Your task to perform on an android device: When is my next appointment? Image 0: 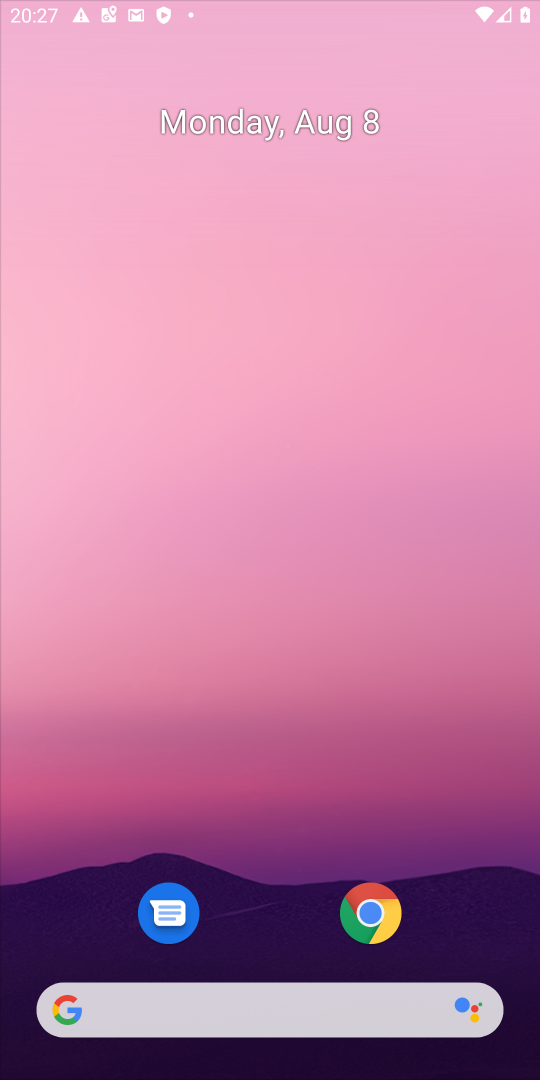
Step 0: press home button
Your task to perform on an android device: When is my next appointment? Image 1: 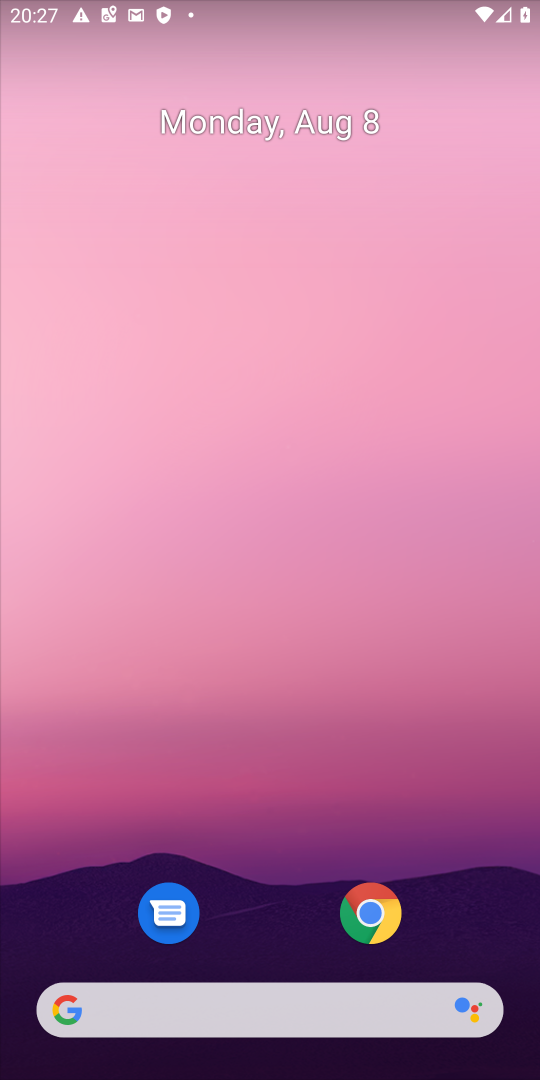
Step 1: drag from (269, 917) to (262, 115)
Your task to perform on an android device: When is my next appointment? Image 2: 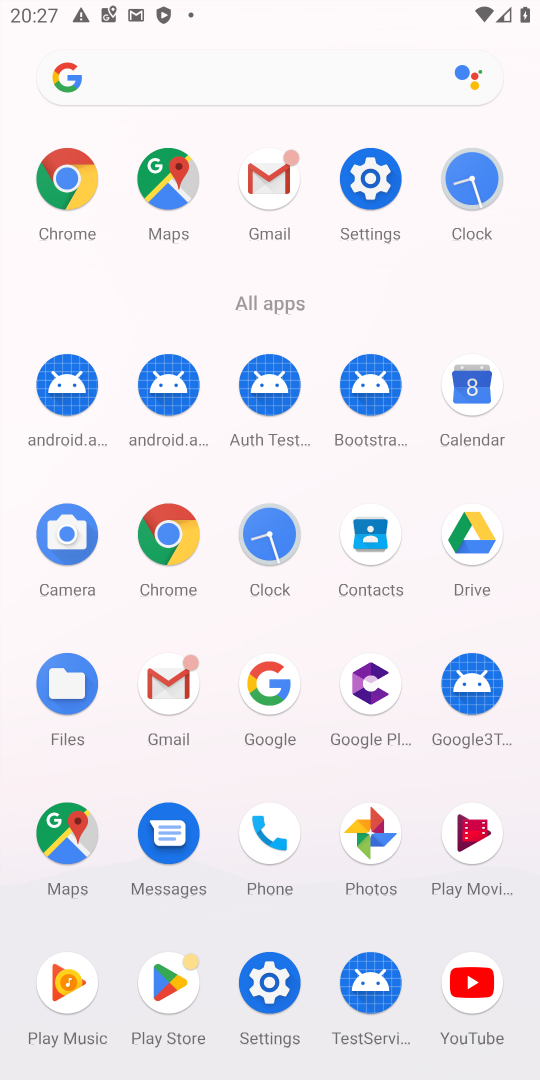
Step 2: click (484, 411)
Your task to perform on an android device: When is my next appointment? Image 3: 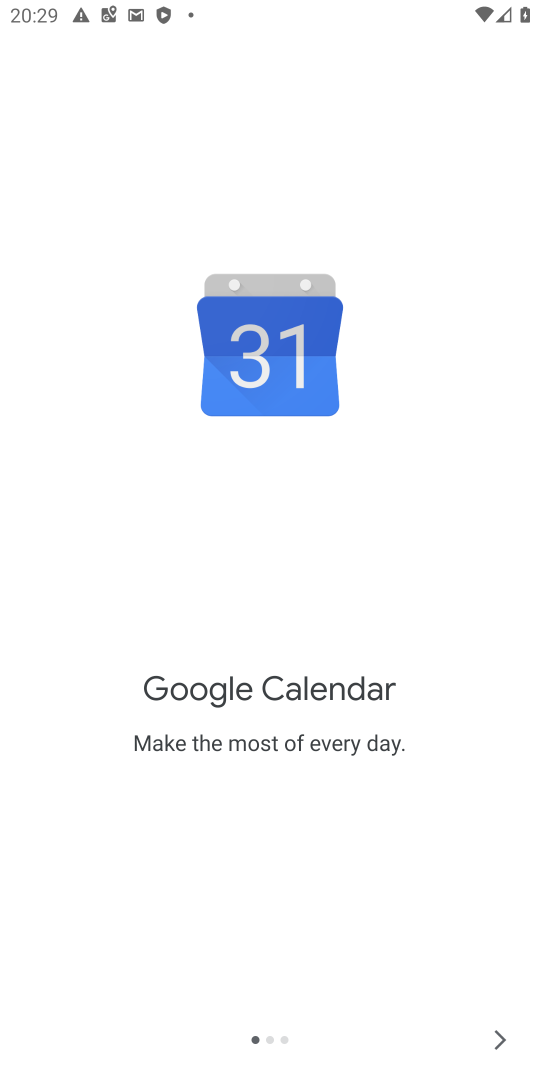
Step 3: click (498, 1049)
Your task to perform on an android device: When is my next appointment? Image 4: 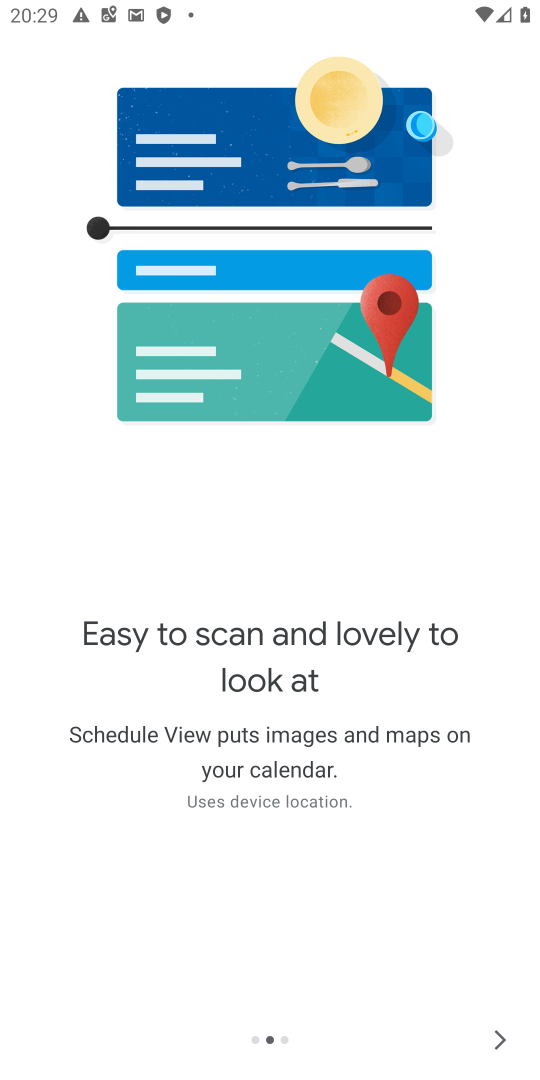
Step 4: click (501, 1043)
Your task to perform on an android device: When is my next appointment? Image 5: 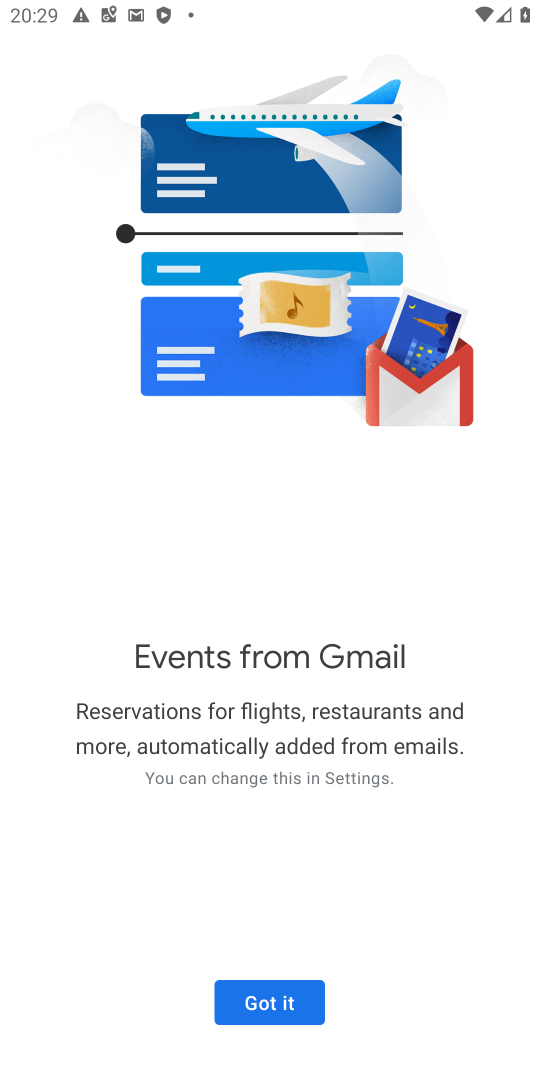
Step 5: click (317, 991)
Your task to perform on an android device: When is my next appointment? Image 6: 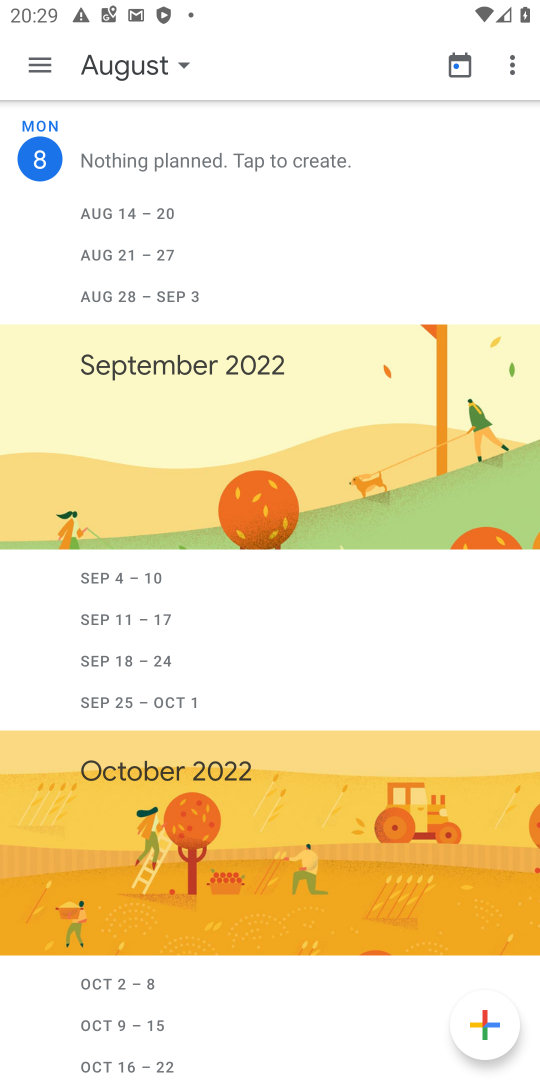
Step 6: click (311, 999)
Your task to perform on an android device: When is my next appointment? Image 7: 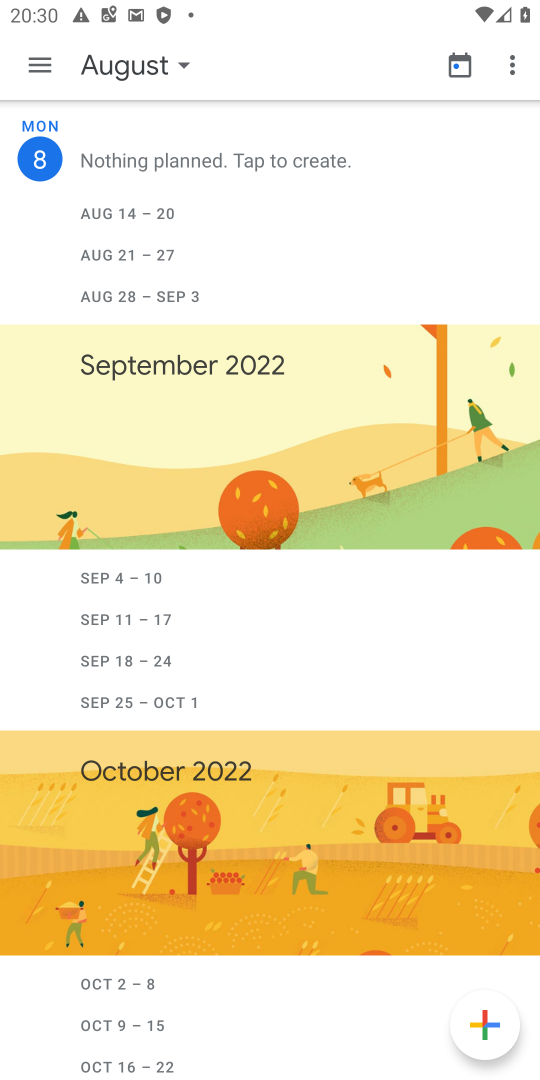
Step 7: click (175, 74)
Your task to perform on an android device: When is my next appointment? Image 8: 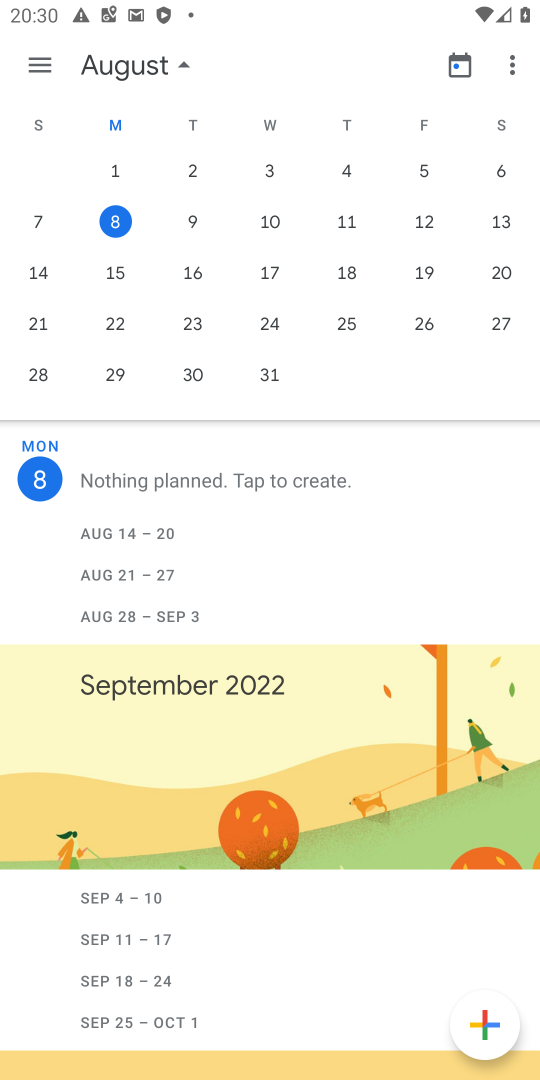
Step 8: click (204, 214)
Your task to perform on an android device: When is my next appointment? Image 9: 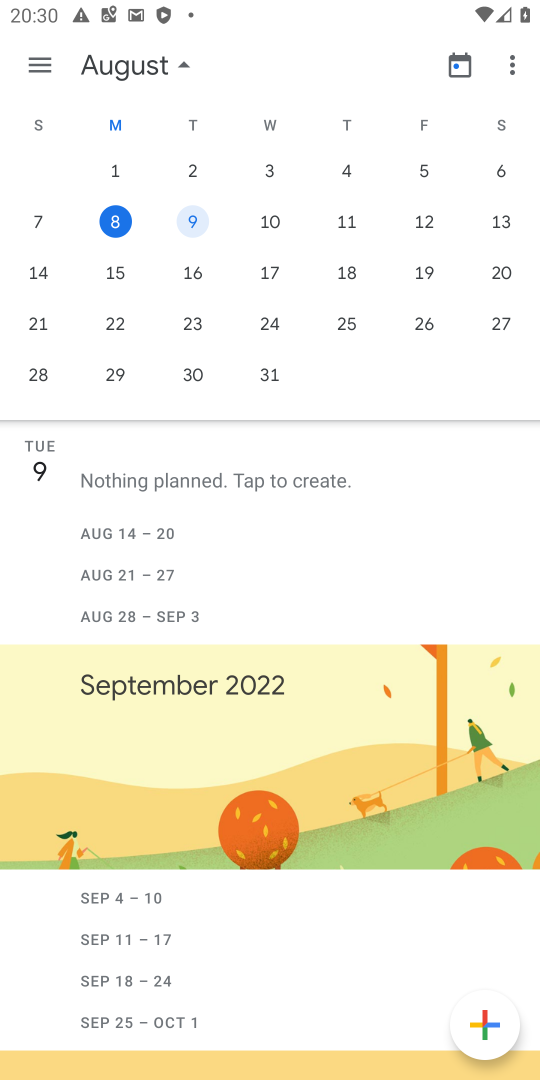
Step 9: task complete